Your task to perform on an android device: toggle wifi Image 0: 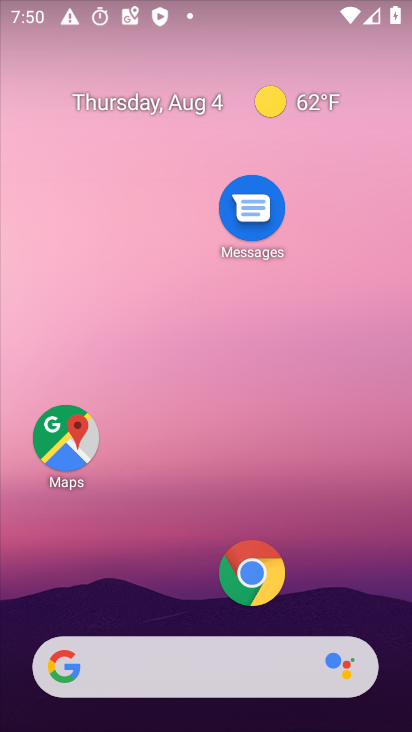
Step 0: press home button
Your task to perform on an android device: toggle wifi Image 1: 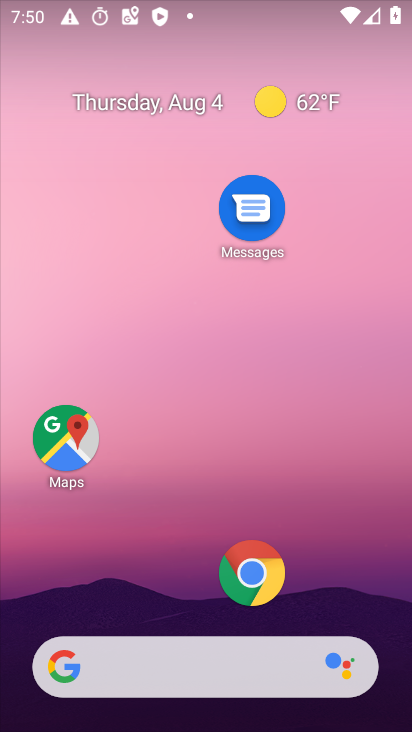
Step 1: drag from (197, 4) to (189, 637)
Your task to perform on an android device: toggle wifi Image 2: 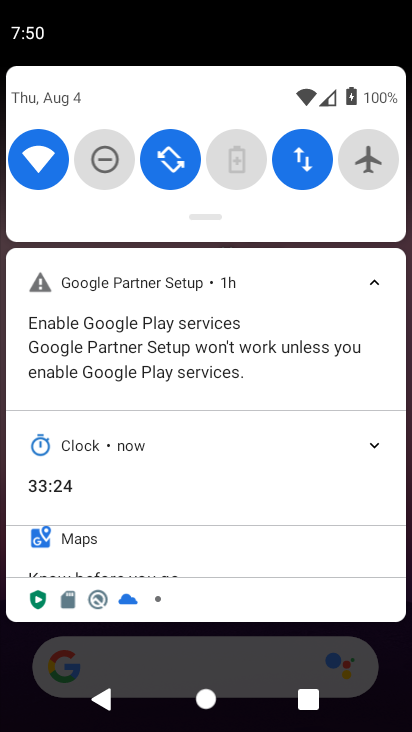
Step 2: click (33, 152)
Your task to perform on an android device: toggle wifi Image 3: 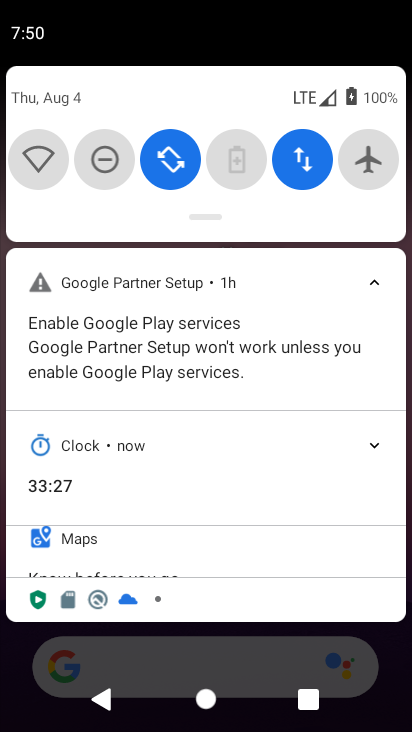
Step 3: task complete